Your task to perform on an android device: show emergency info Image 0: 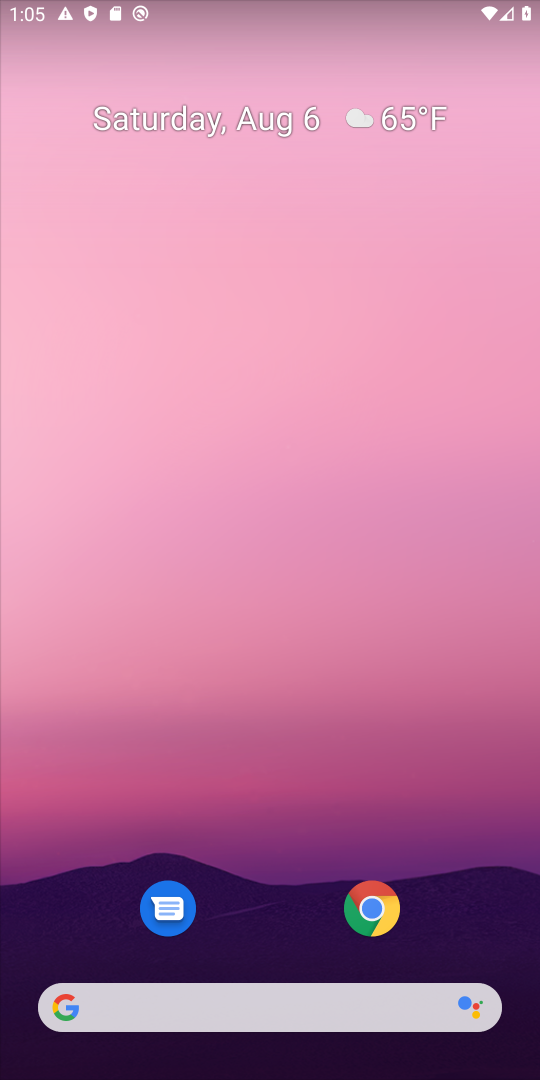
Step 0: drag from (264, 830) to (217, 148)
Your task to perform on an android device: show emergency info Image 1: 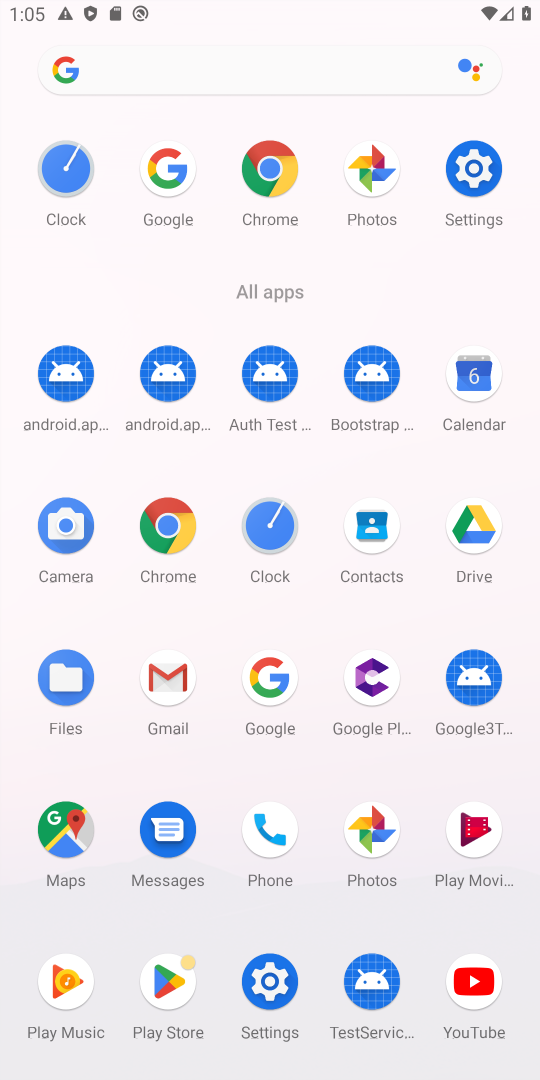
Step 1: click (468, 178)
Your task to perform on an android device: show emergency info Image 2: 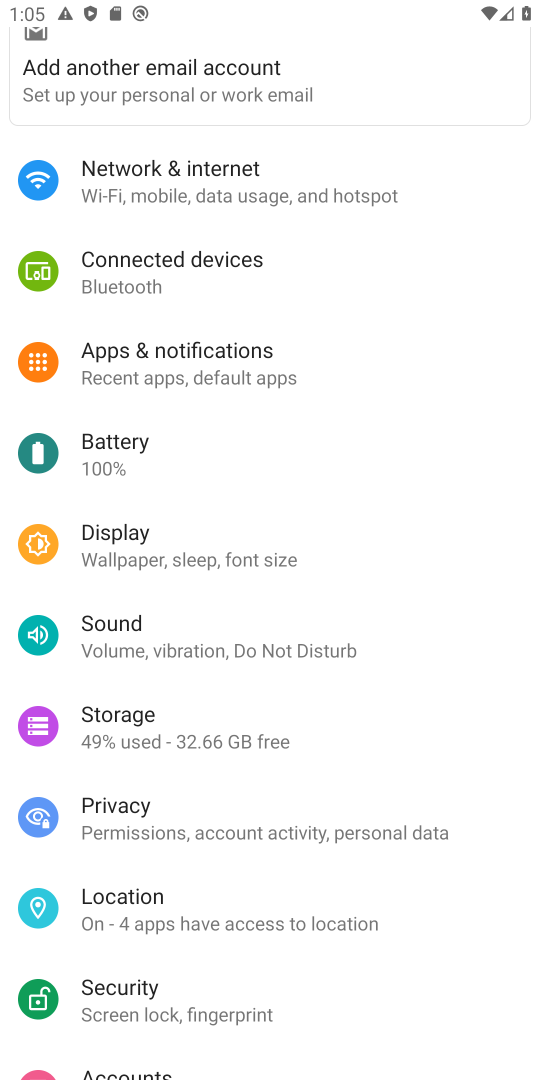
Step 2: drag from (232, 909) to (228, 108)
Your task to perform on an android device: show emergency info Image 3: 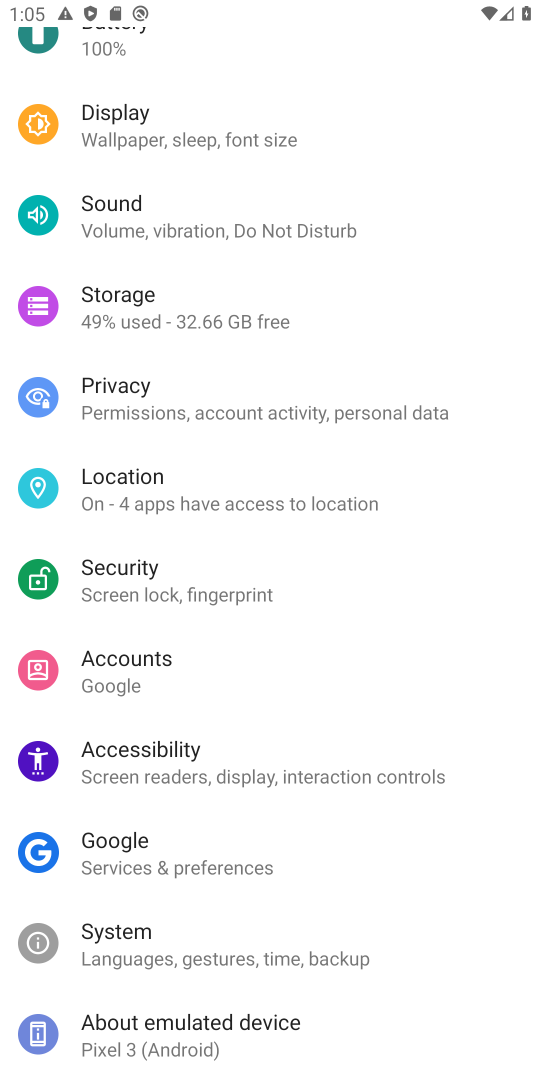
Step 3: drag from (192, 883) to (192, 472)
Your task to perform on an android device: show emergency info Image 4: 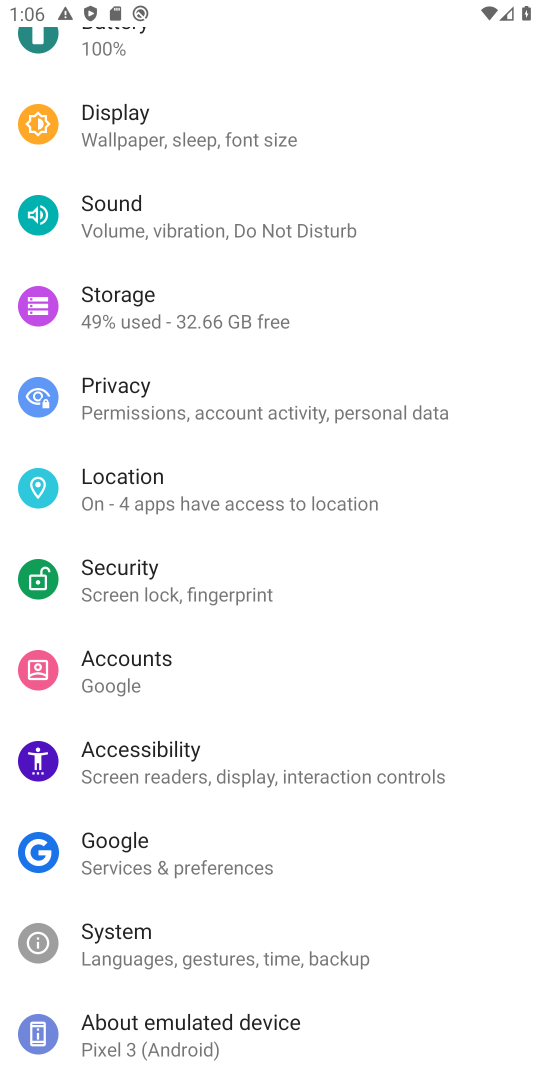
Step 4: click (166, 1019)
Your task to perform on an android device: show emergency info Image 5: 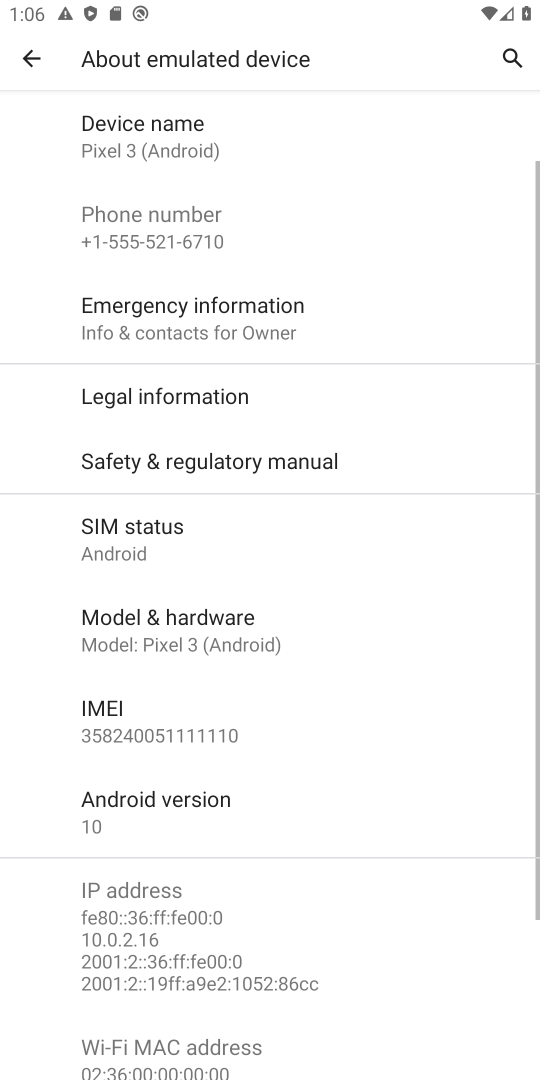
Step 5: click (204, 315)
Your task to perform on an android device: show emergency info Image 6: 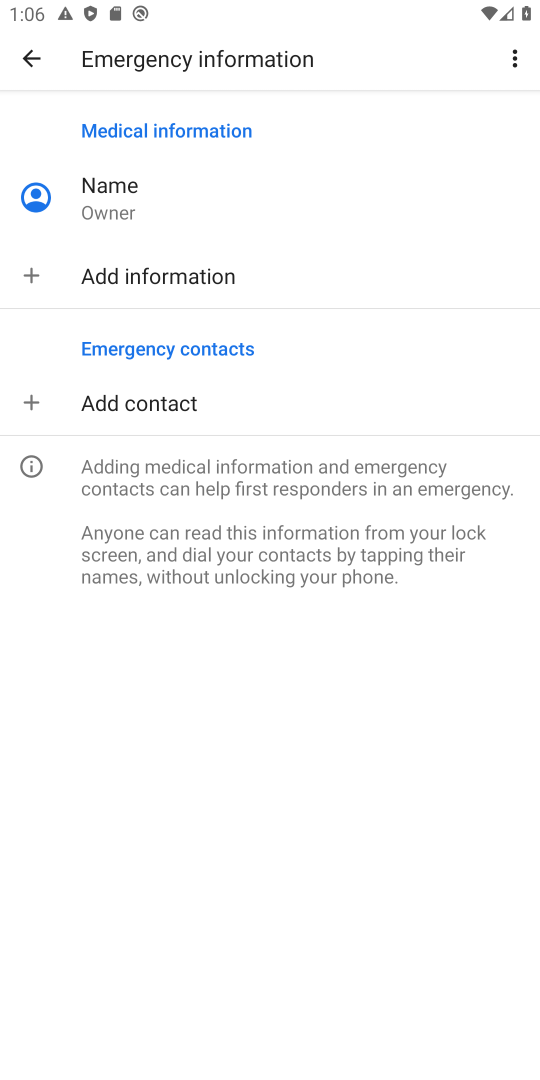
Step 6: task complete